Your task to perform on an android device: toggle notifications settings in the gmail app Image 0: 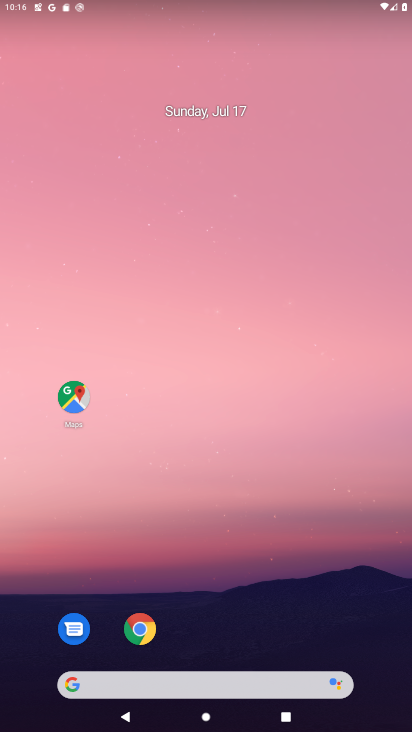
Step 0: drag from (238, 685) to (248, 216)
Your task to perform on an android device: toggle notifications settings in the gmail app Image 1: 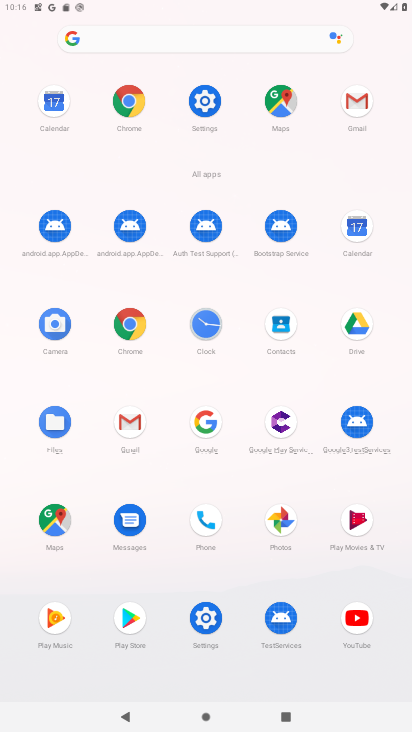
Step 1: click (357, 101)
Your task to perform on an android device: toggle notifications settings in the gmail app Image 2: 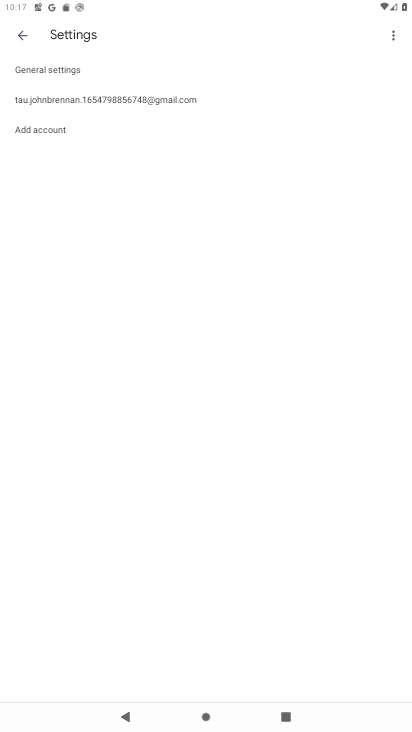
Step 2: click (164, 107)
Your task to perform on an android device: toggle notifications settings in the gmail app Image 3: 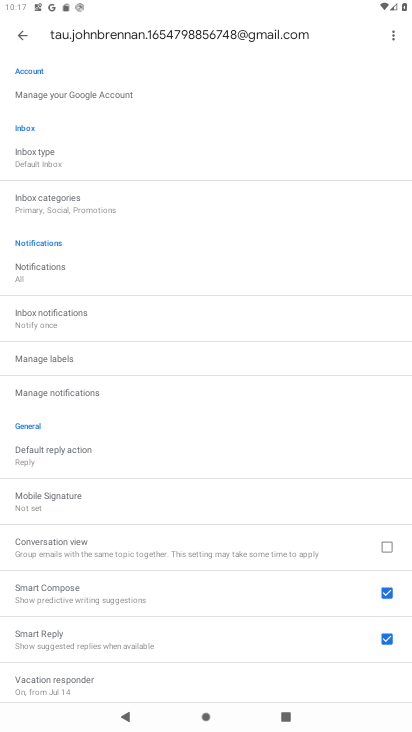
Step 3: click (81, 389)
Your task to perform on an android device: toggle notifications settings in the gmail app Image 4: 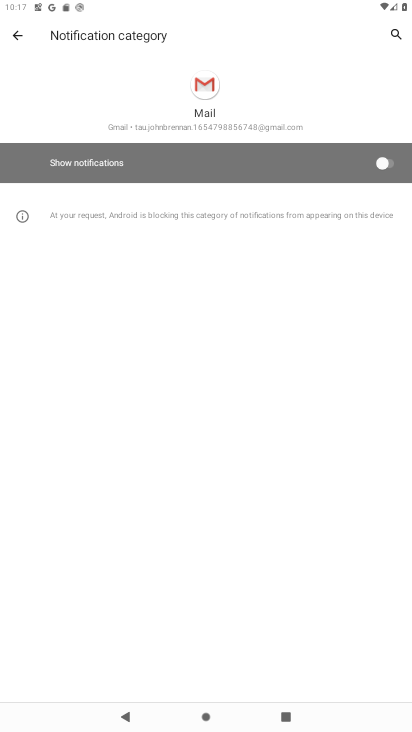
Step 4: click (385, 168)
Your task to perform on an android device: toggle notifications settings in the gmail app Image 5: 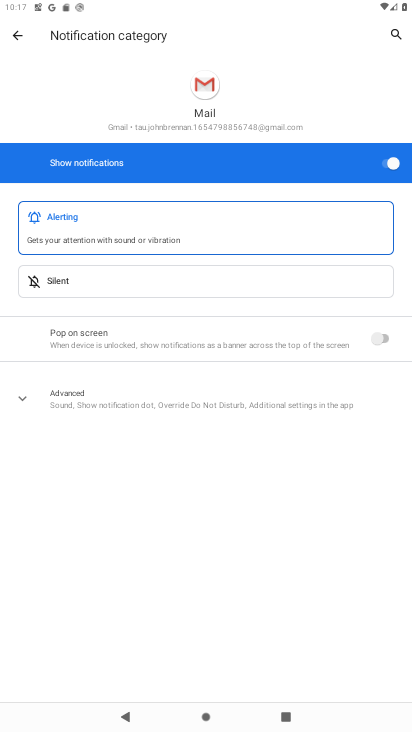
Step 5: task complete